Your task to perform on an android device: turn on the 12-hour format for clock Image 0: 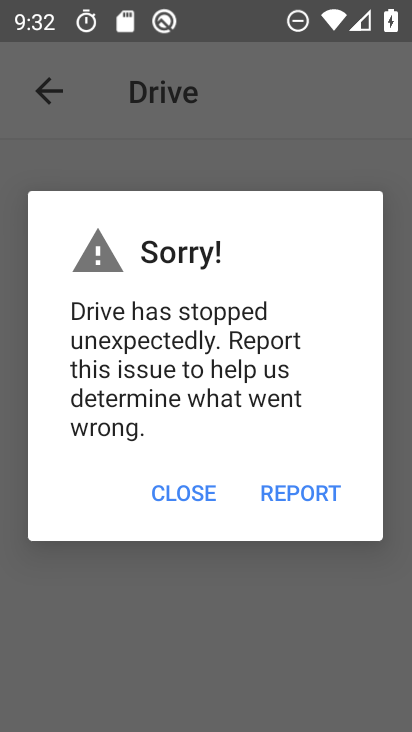
Step 0: press home button
Your task to perform on an android device: turn on the 12-hour format for clock Image 1: 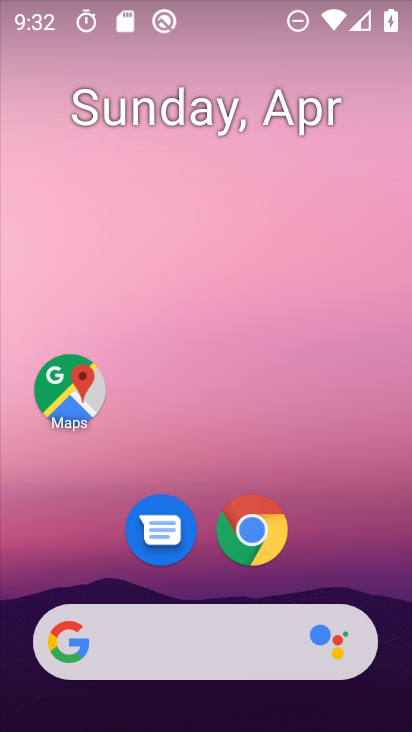
Step 1: drag from (389, 527) to (402, 8)
Your task to perform on an android device: turn on the 12-hour format for clock Image 2: 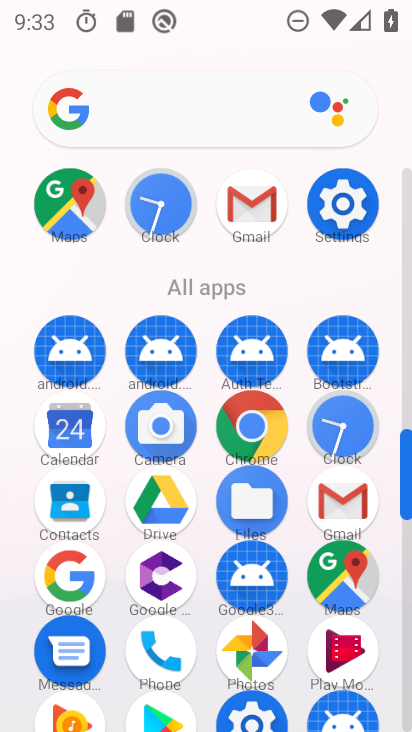
Step 2: click (153, 206)
Your task to perform on an android device: turn on the 12-hour format for clock Image 3: 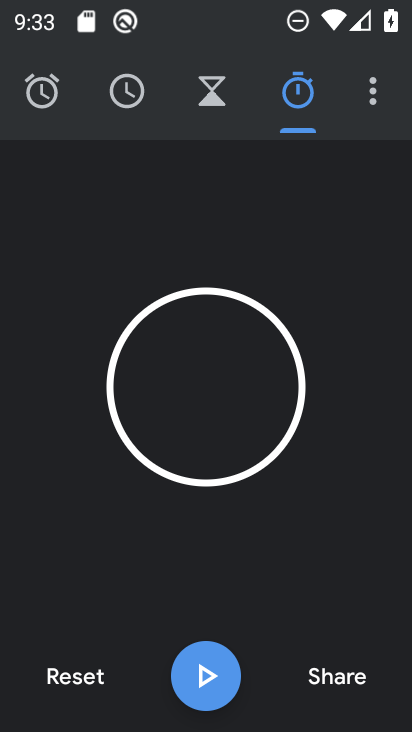
Step 3: click (369, 92)
Your task to perform on an android device: turn on the 12-hour format for clock Image 4: 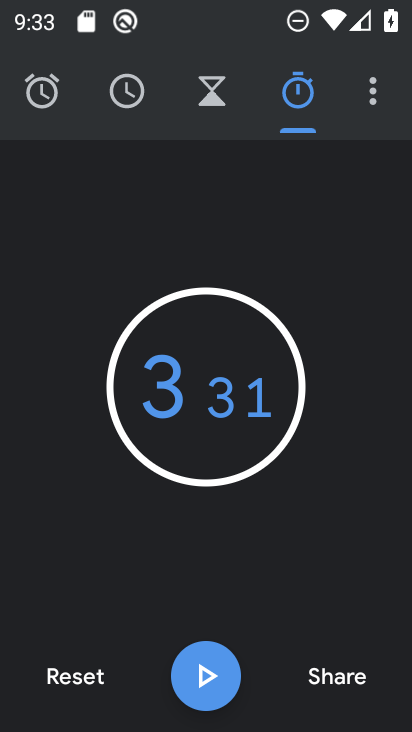
Step 4: click (377, 94)
Your task to perform on an android device: turn on the 12-hour format for clock Image 5: 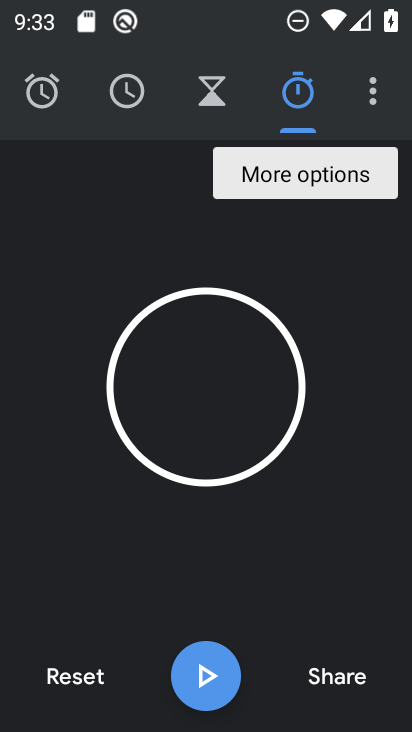
Step 5: click (383, 96)
Your task to perform on an android device: turn on the 12-hour format for clock Image 6: 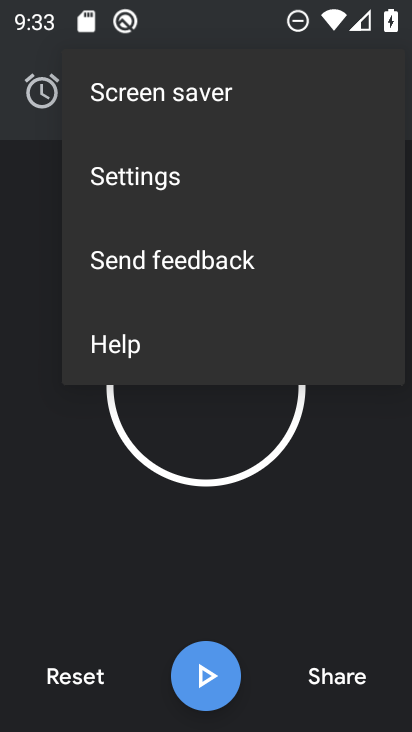
Step 6: click (133, 180)
Your task to perform on an android device: turn on the 12-hour format for clock Image 7: 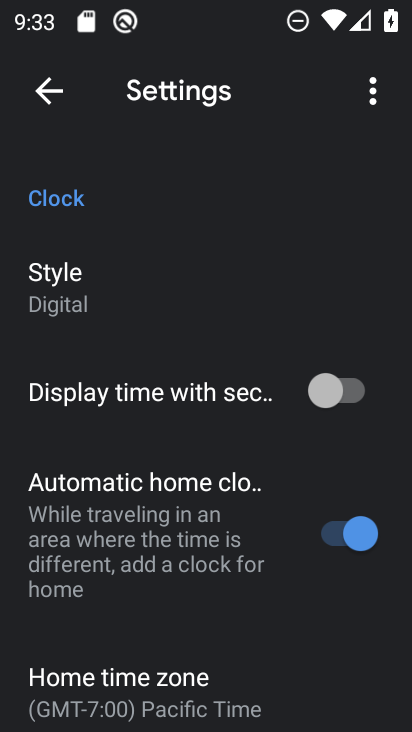
Step 7: drag from (186, 356) to (186, 263)
Your task to perform on an android device: turn on the 12-hour format for clock Image 8: 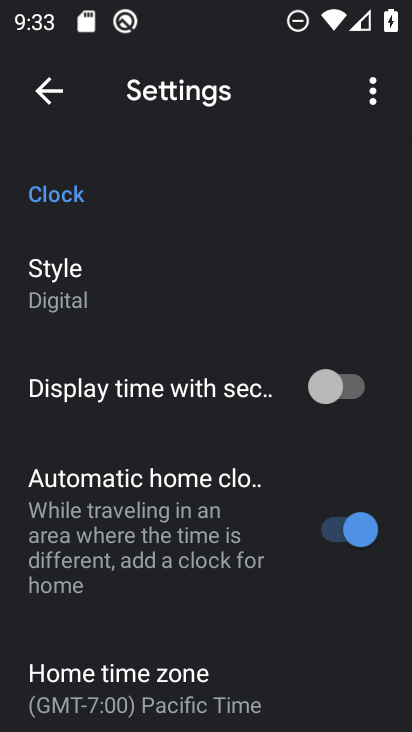
Step 8: drag from (141, 440) to (138, 220)
Your task to perform on an android device: turn on the 12-hour format for clock Image 9: 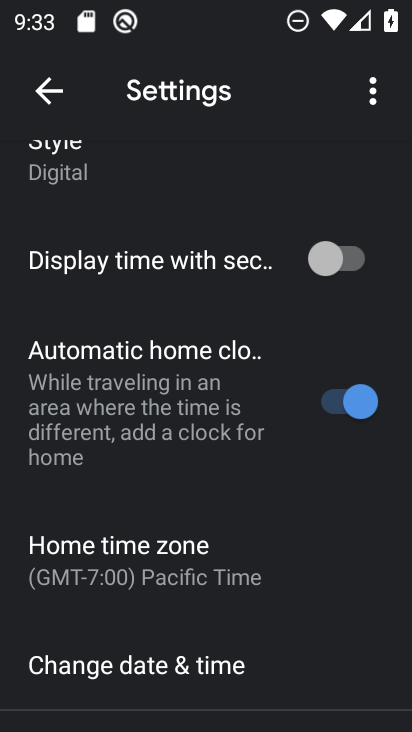
Step 9: click (104, 675)
Your task to perform on an android device: turn on the 12-hour format for clock Image 10: 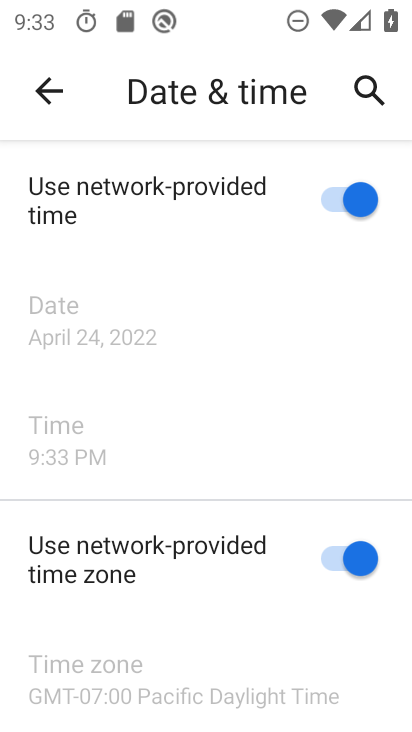
Step 10: task complete